Your task to perform on an android device: turn pop-ups on in chrome Image 0: 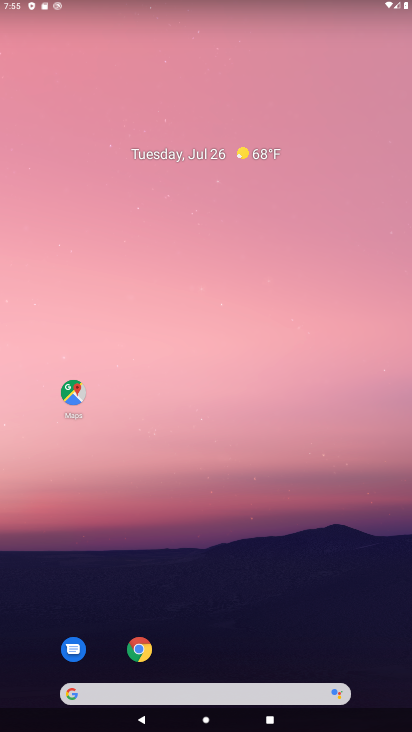
Step 0: click (141, 656)
Your task to perform on an android device: turn pop-ups on in chrome Image 1: 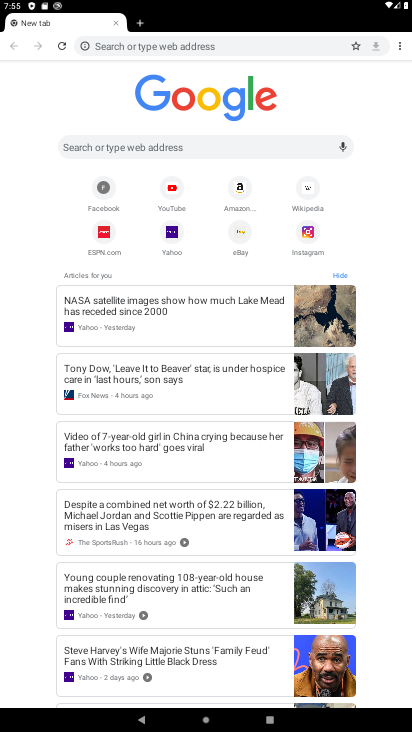
Step 1: click (399, 43)
Your task to perform on an android device: turn pop-ups on in chrome Image 2: 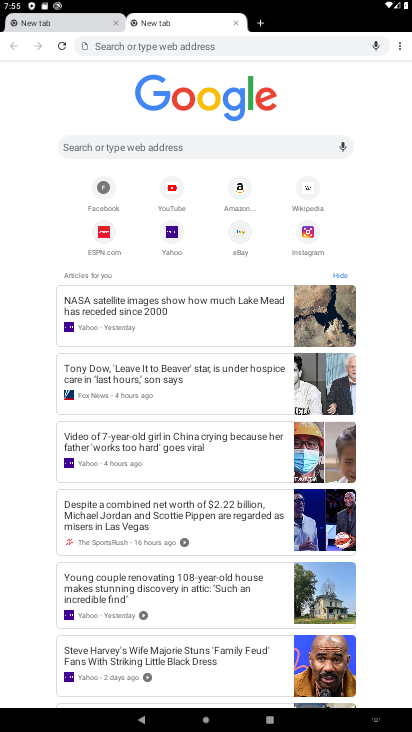
Step 2: click (399, 43)
Your task to perform on an android device: turn pop-ups on in chrome Image 3: 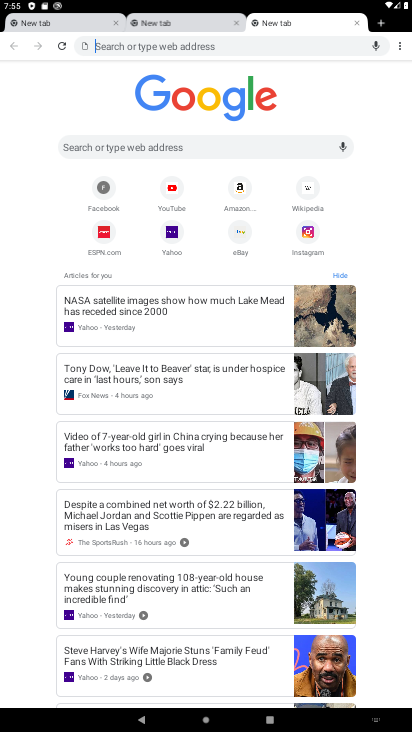
Step 3: click (405, 45)
Your task to perform on an android device: turn pop-ups on in chrome Image 4: 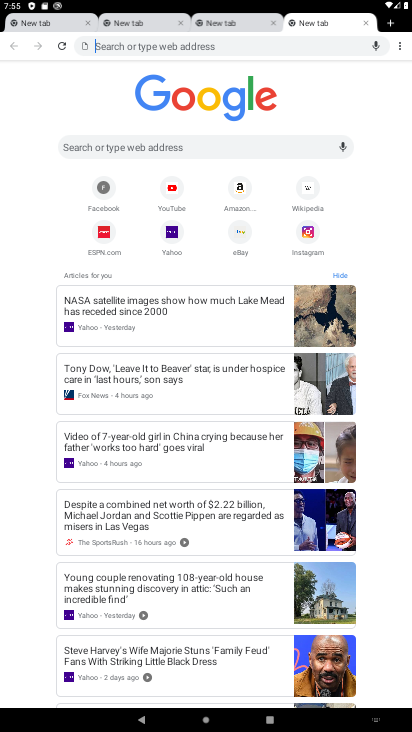
Step 4: click (401, 43)
Your task to perform on an android device: turn pop-ups on in chrome Image 5: 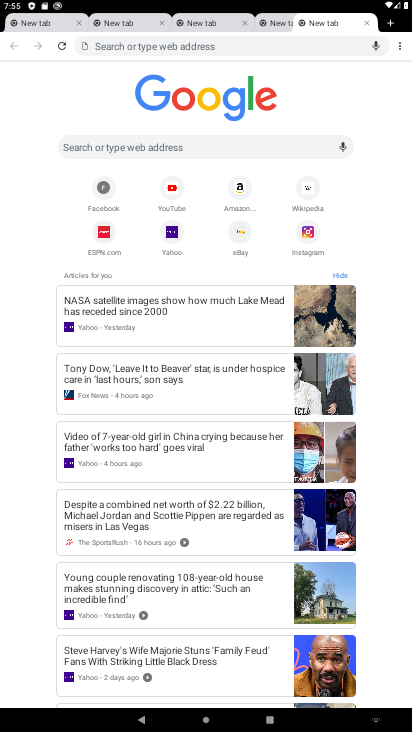
Step 5: click (403, 47)
Your task to perform on an android device: turn pop-ups on in chrome Image 6: 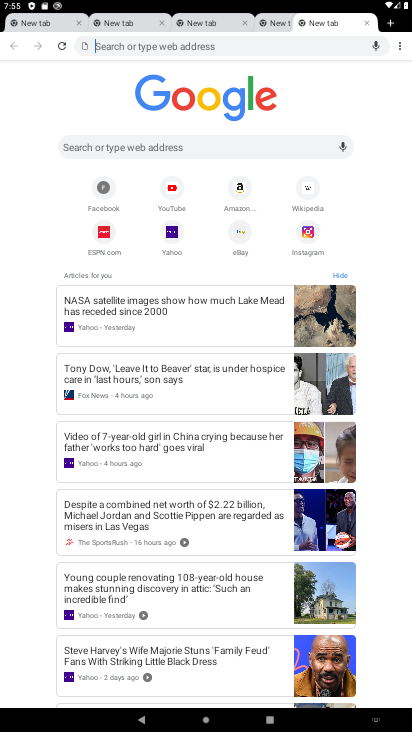
Step 6: click (401, 42)
Your task to perform on an android device: turn pop-ups on in chrome Image 7: 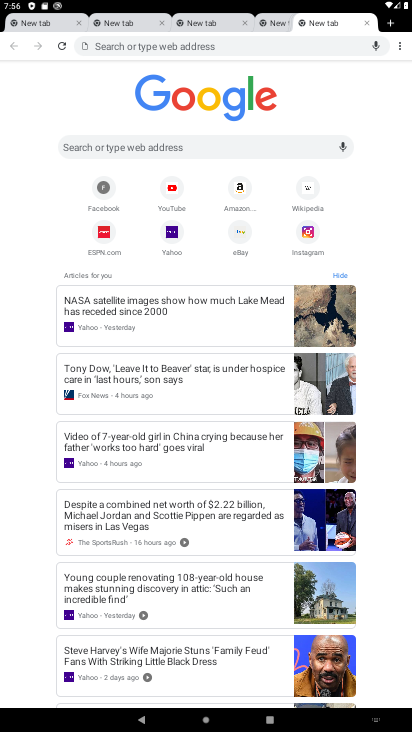
Step 7: click (398, 44)
Your task to perform on an android device: turn pop-ups on in chrome Image 8: 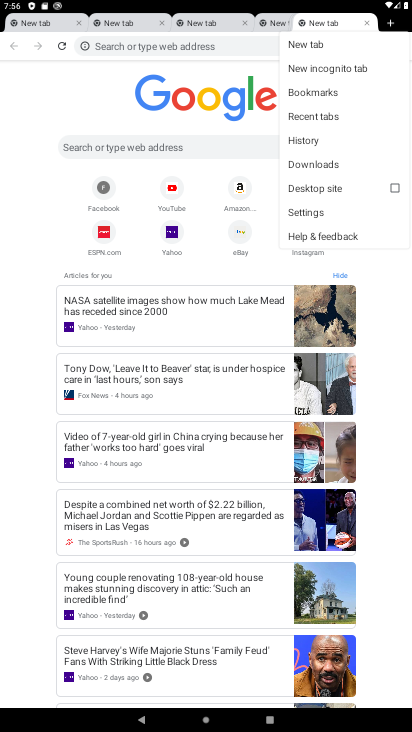
Step 8: click (320, 210)
Your task to perform on an android device: turn pop-ups on in chrome Image 9: 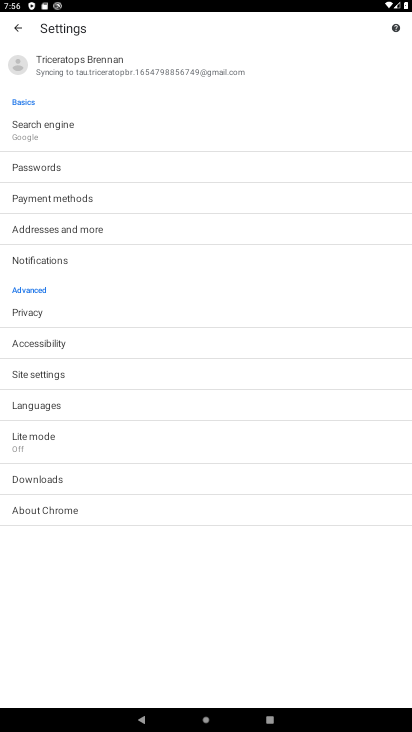
Step 9: click (51, 375)
Your task to perform on an android device: turn pop-ups on in chrome Image 10: 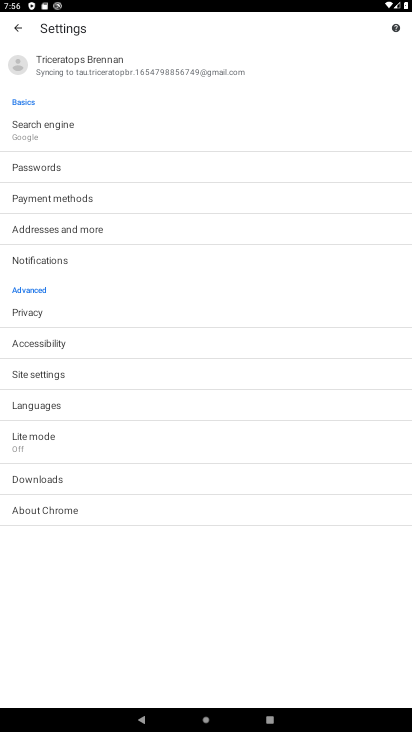
Step 10: click (51, 375)
Your task to perform on an android device: turn pop-ups on in chrome Image 11: 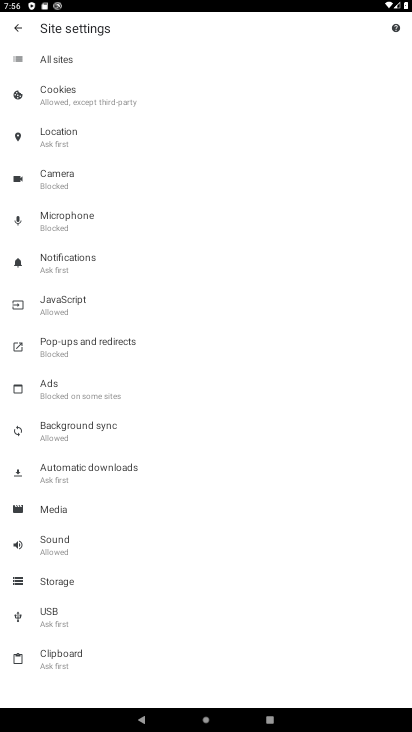
Step 11: click (86, 339)
Your task to perform on an android device: turn pop-ups on in chrome Image 12: 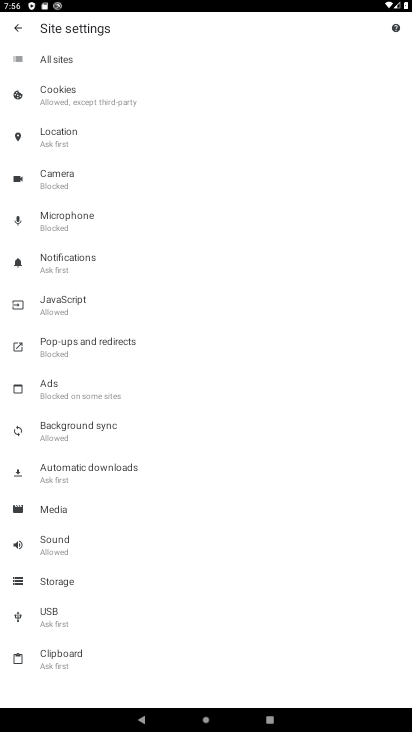
Step 12: click (86, 339)
Your task to perform on an android device: turn pop-ups on in chrome Image 13: 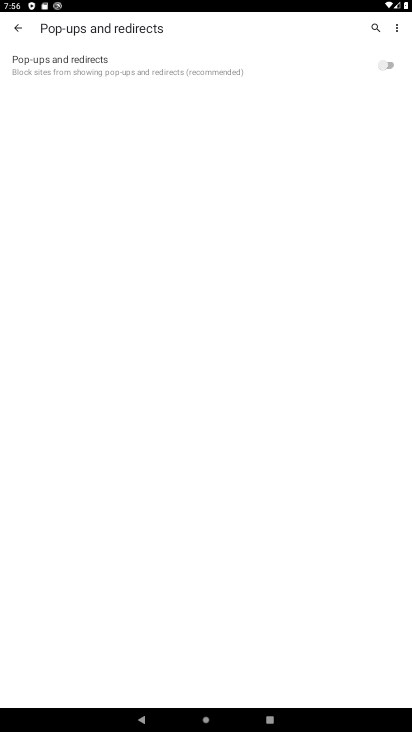
Step 13: click (384, 63)
Your task to perform on an android device: turn pop-ups on in chrome Image 14: 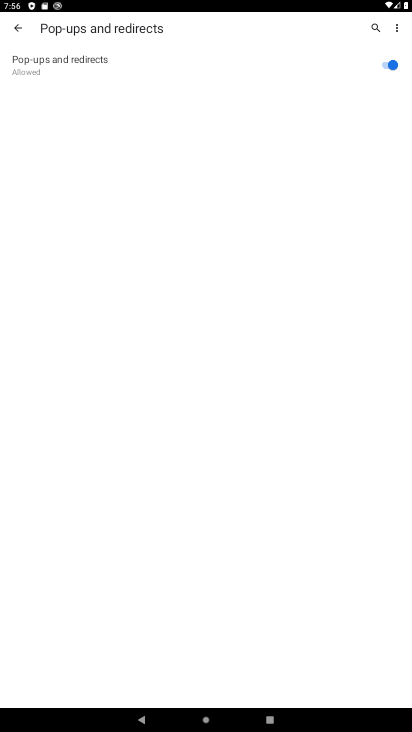
Step 14: task complete